Your task to perform on an android device: Search for "bose soundlink mini" on target, select the first entry, and add it to the cart. Image 0: 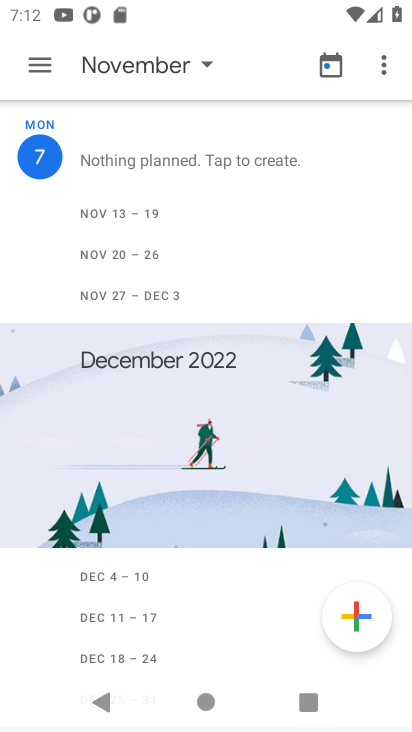
Step 0: press home button
Your task to perform on an android device: Search for "bose soundlink mini" on target, select the first entry, and add it to the cart. Image 1: 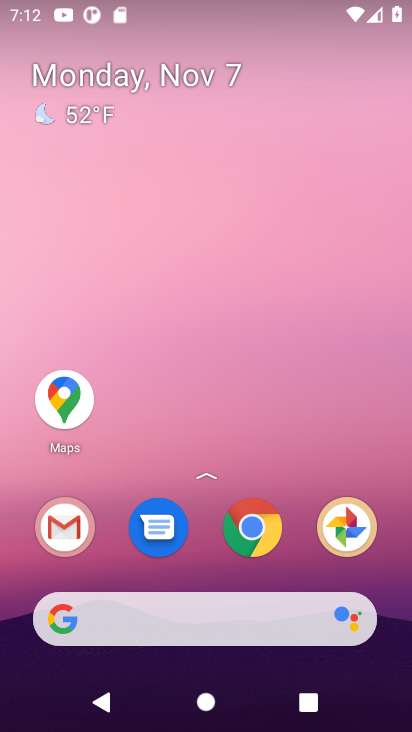
Step 1: click (279, 537)
Your task to perform on an android device: Search for "bose soundlink mini" on target, select the first entry, and add it to the cart. Image 2: 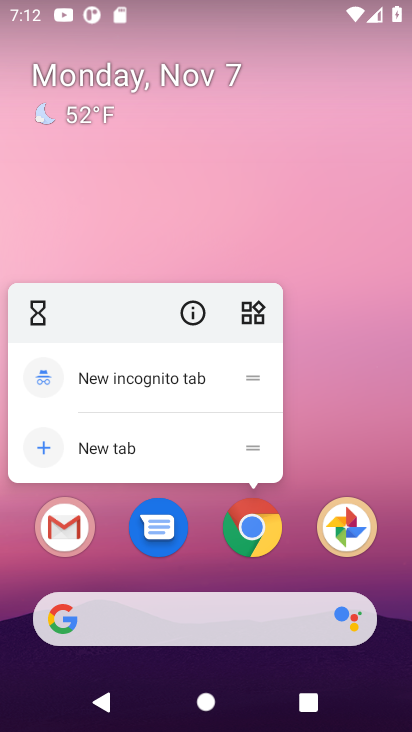
Step 2: click (265, 536)
Your task to perform on an android device: Search for "bose soundlink mini" on target, select the first entry, and add it to the cart. Image 3: 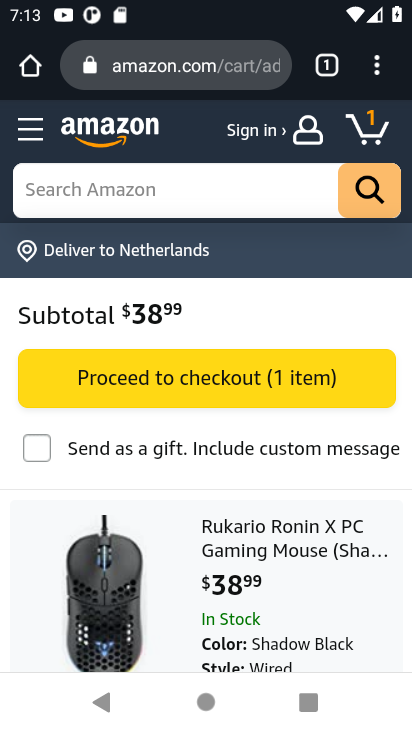
Step 3: click (166, 64)
Your task to perform on an android device: Search for "bose soundlink mini" on target, select the first entry, and add it to the cart. Image 4: 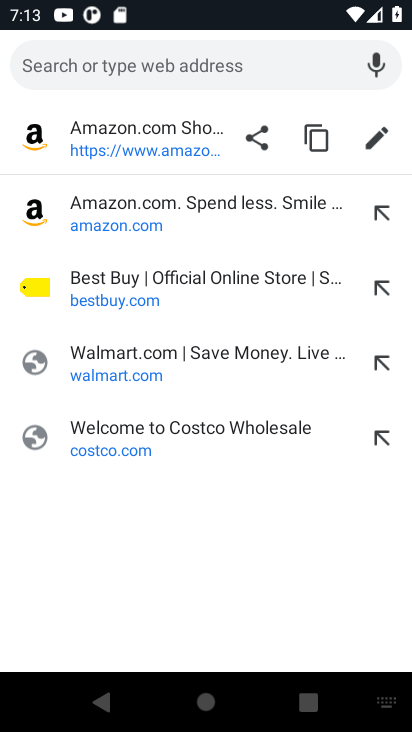
Step 4: type "target"
Your task to perform on an android device: Search for "bose soundlink mini" on target, select the first entry, and add it to the cart. Image 5: 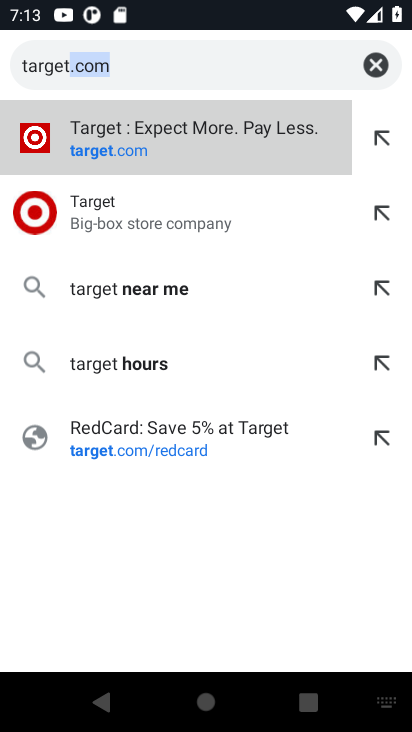
Step 5: click (193, 123)
Your task to perform on an android device: Search for "bose soundlink mini" on target, select the first entry, and add it to the cart. Image 6: 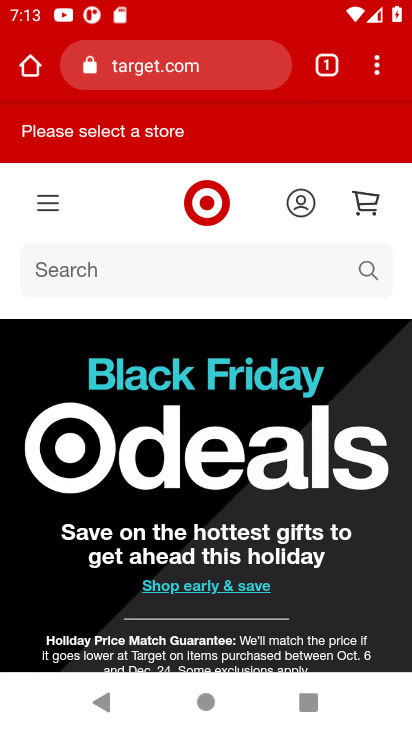
Step 6: click (124, 266)
Your task to perform on an android device: Search for "bose soundlink mini" on target, select the first entry, and add it to the cart. Image 7: 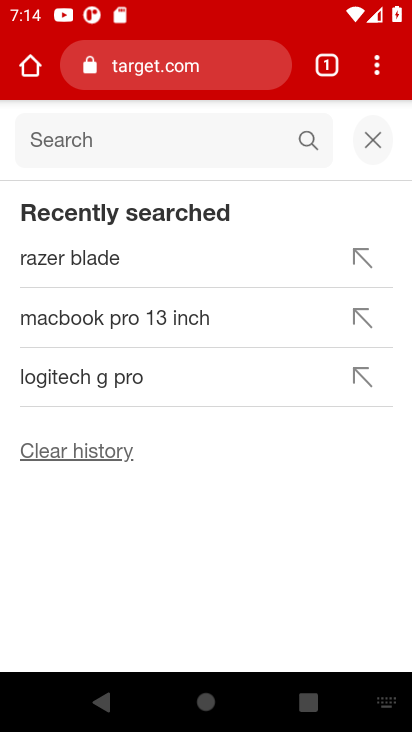
Step 7: type "bose soundlink mini"
Your task to perform on an android device: Search for "bose soundlink mini" on target, select the first entry, and add it to the cart. Image 8: 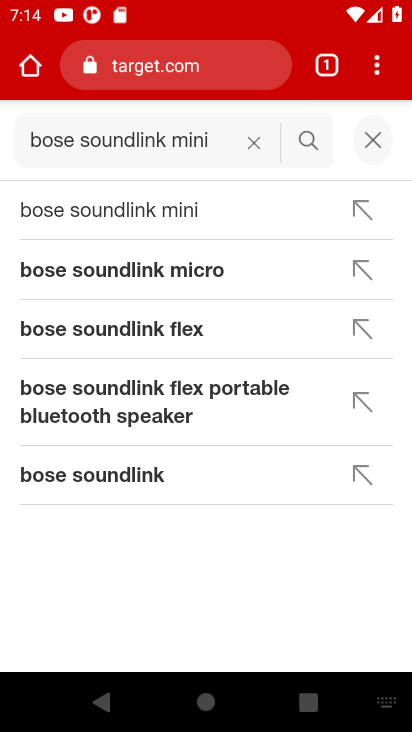
Step 8: click (161, 210)
Your task to perform on an android device: Search for "bose soundlink mini" on target, select the first entry, and add it to the cart. Image 9: 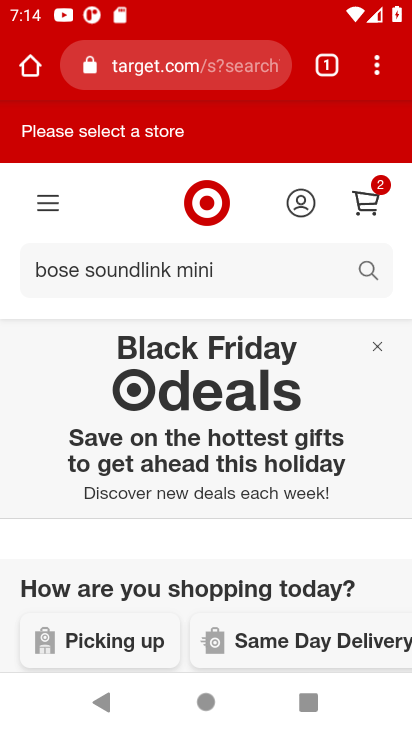
Step 9: drag from (214, 520) to (119, 86)
Your task to perform on an android device: Search for "bose soundlink mini" on target, select the first entry, and add it to the cart. Image 10: 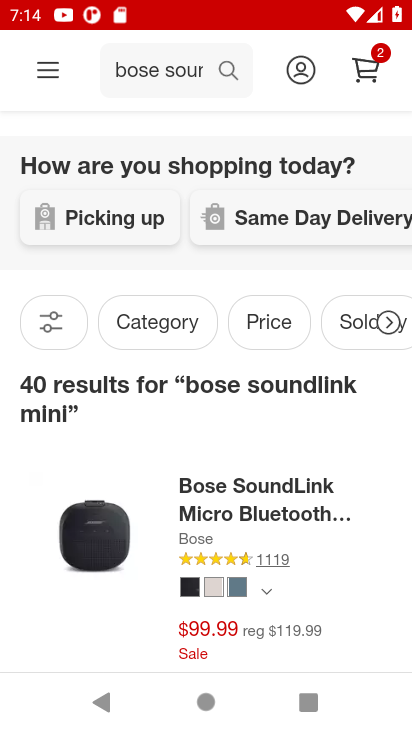
Step 10: drag from (245, 594) to (202, 437)
Your task to perform on an android device: Search for "bose soundlink mini" on target, select the first entry, and add it to the cart. Image 11: 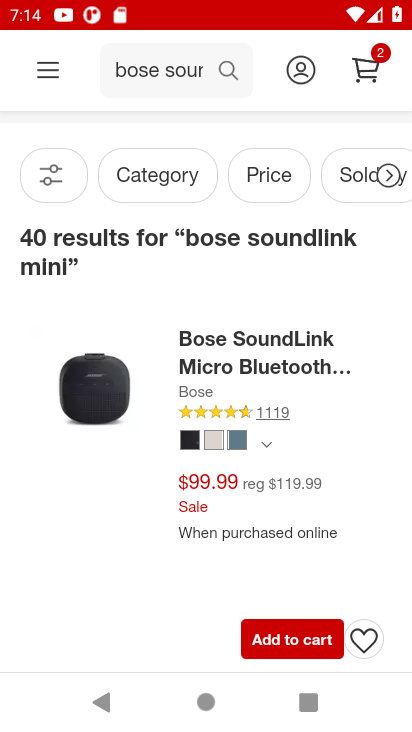
Step 11: click (112, 424)
Your task to perform on an android device: Search for "bose soundlink mini" on target, select the first entry, and add it to the cart. Image 12: 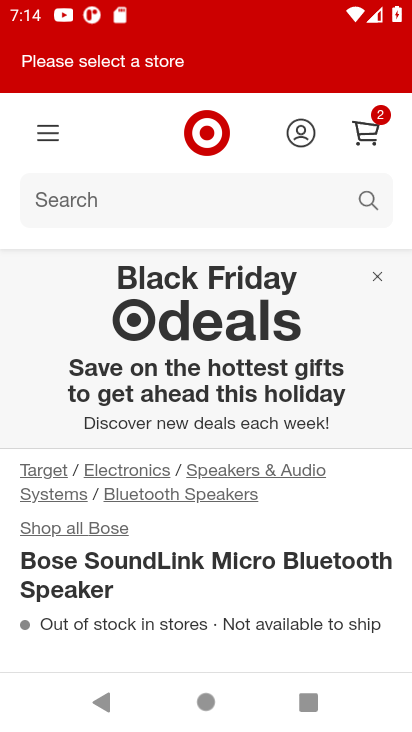
Step 12: drag from (260, 582) to (183, 324)
Your task to perform on an android device: Search for "bose soundlink mini" on target, select the first entry, and add it to the cart. Image 13: 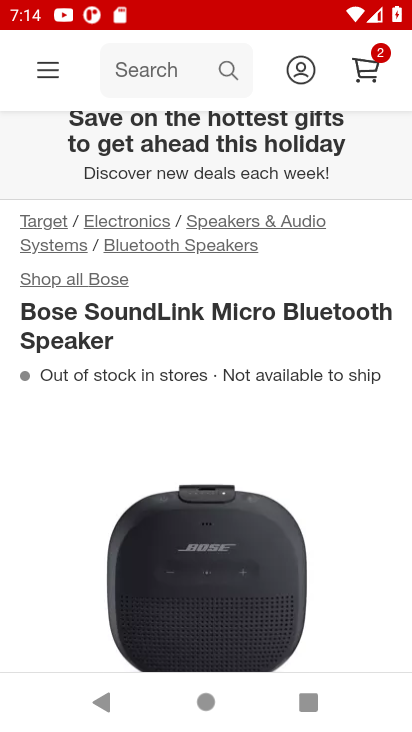
Step 13: drag from (216, 589) to (181, 320)
Your task to perform on an android device: Search for "bose soundlink mini" on target, select the first entry, and add it to the cart. Image 14: 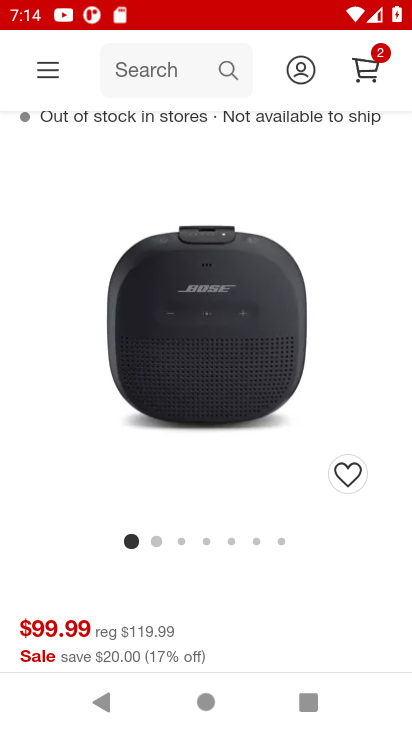
Step 14: drag from (261, 616) to (202, 57)
Your task to perform on an android device: Search for "bose soundlink mini" on target, select the first entry, and add it to the cart. Image 15: 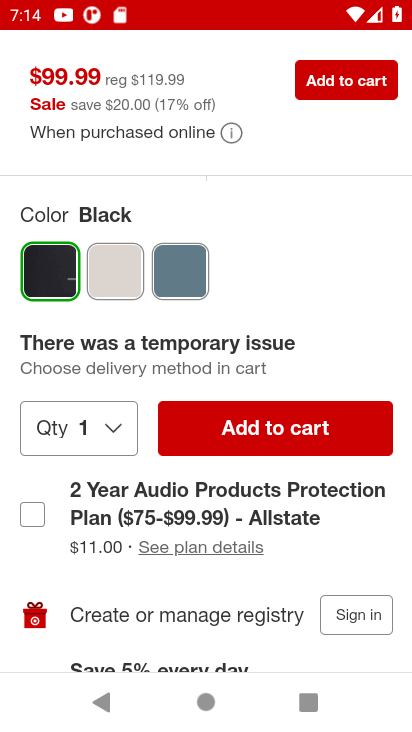
Step 15: click (326, 420)
Your task to perform on an android device: Search for "bose soundlink mini" on target, select the first entry, and add it to the cart. Image 16: 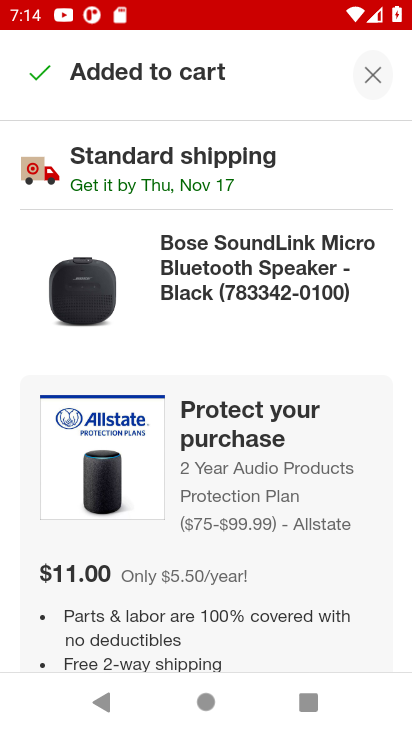
Step 16: drag from (354, 552) to (307, 364)
Your task to perform on an android device: Search for "bose soundlink mini" on target, select the first entry, and add it to the cart. Image 17: 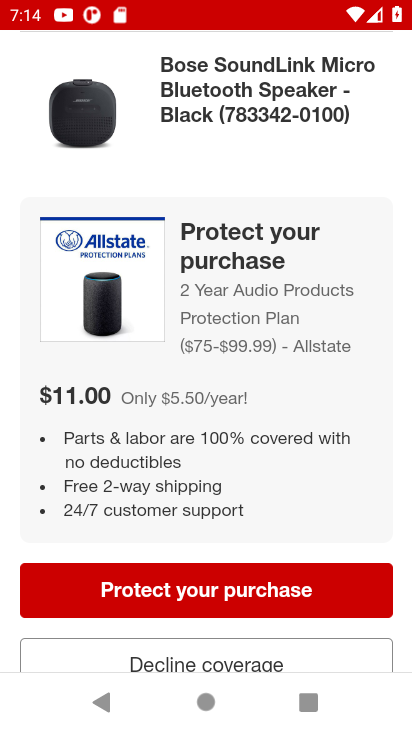
Step 17: click (307, 656)
Your task to perform on an android device: Search for "bose soundlink mini" on target, select the first entry, and add it to the cart. Image 18: 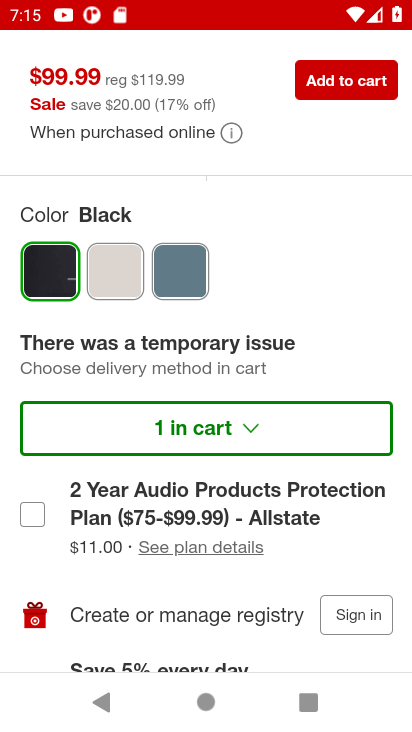
Step 18: task complete